Your task to perform on an android device: open a new tab in the chrome app Image 0: 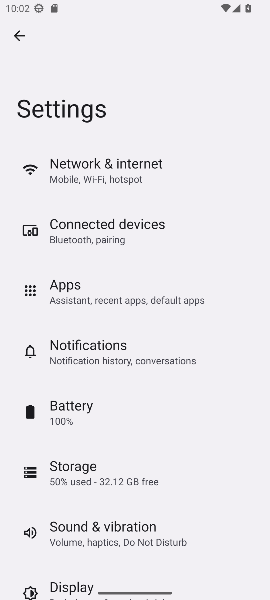
Step 0: press home button
Your task to perform on an android device: open a new tab in the chrome app Image 1: 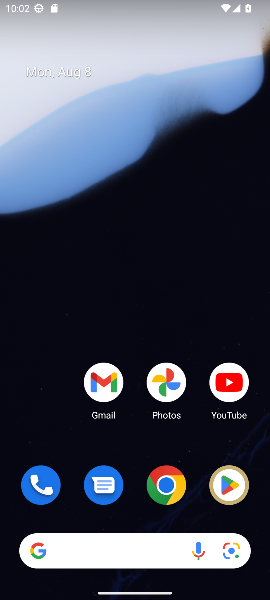
Step 1: drag from (139, 504) to (176, 4)
Your task to perform on an android device: open a new tab in the chrome app Image 2: 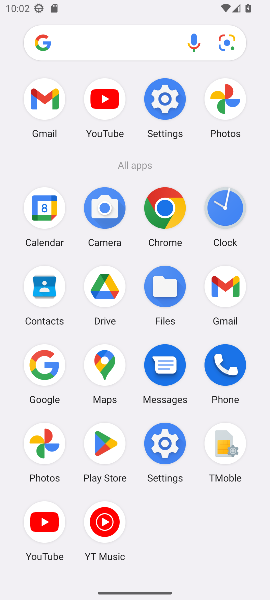
Step 2: click (171, 202)
Your task to perform on an android device: open a new tab in the chrome app Image 3: 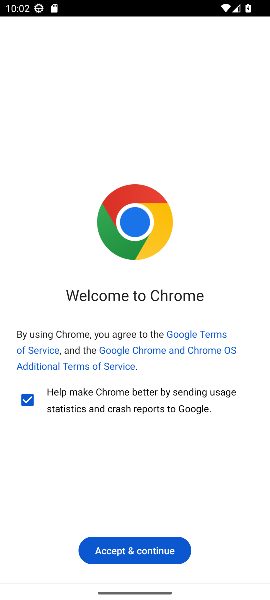
Step 3: click (147, 550)
Your task to perform on an android device: open a new tab in the chrome app Image 4: 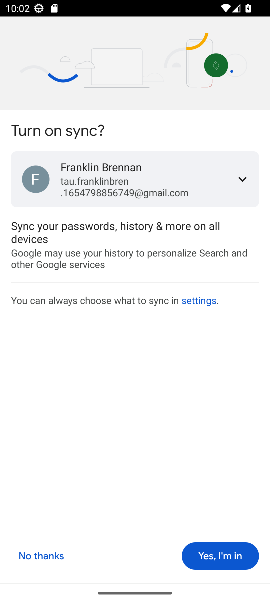
Step 4: click (222, 554)
Your task to perform on an android device: open a new tab in the chrome app Image 5: 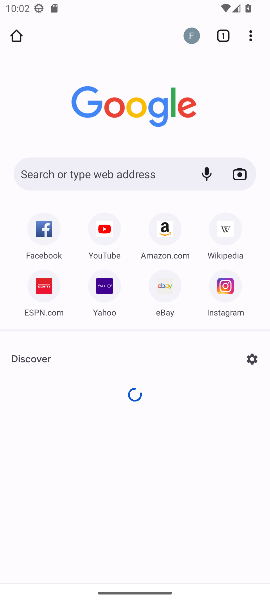
Step 5: task complete